Your task to perform on an android device: Is it going to rain today? Image 0: 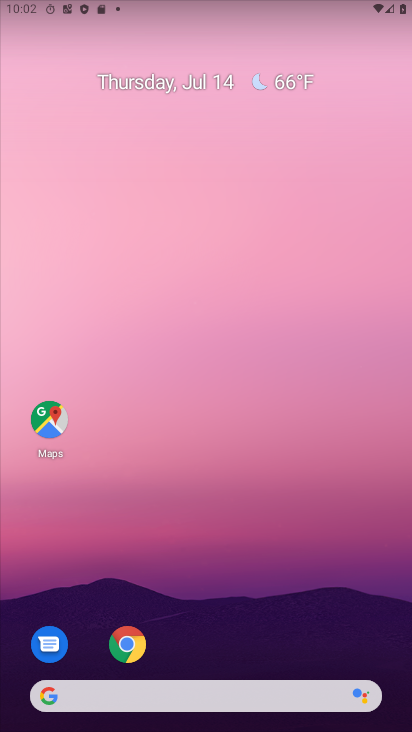
Step 0: drag from (188, 343) to (182, 289)
Your task to perform on an android device: Is it going to rain today? Image 1: 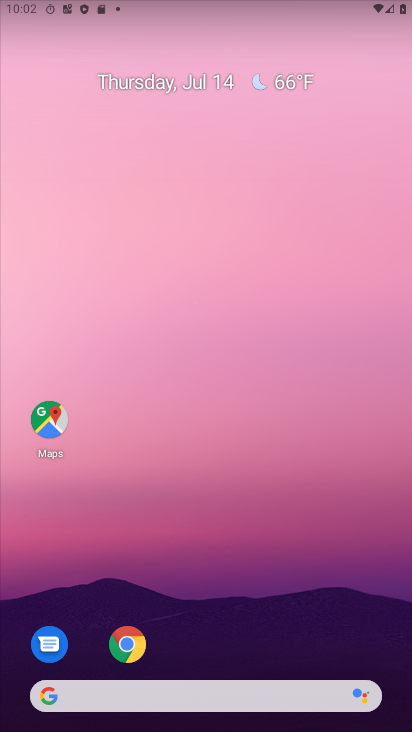
Step 1: drag from (256, 662) to (232, 221)
Your task to perform on an android device: Is it going to rain today? Image 2: 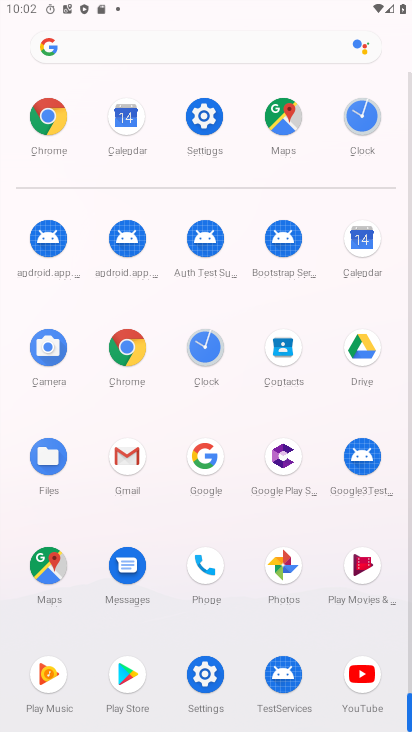
Step 2: click (54, 121)
Your task to perform on an android device: Is it going to rain today? Image 3: 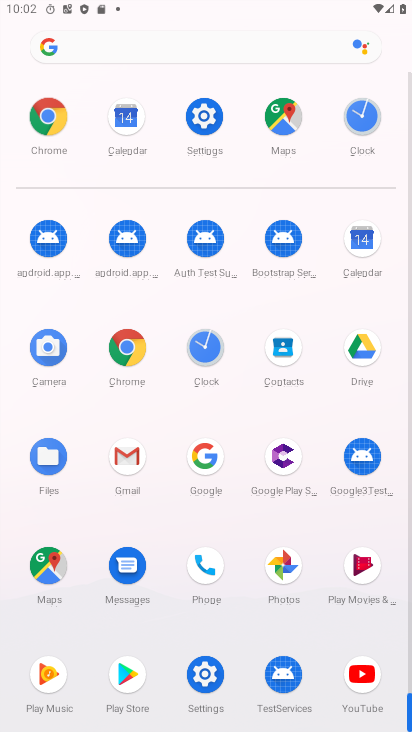
Step 3: click (54, 121)
Your task to perform on an android device: Is it going to rain today? Image 4: 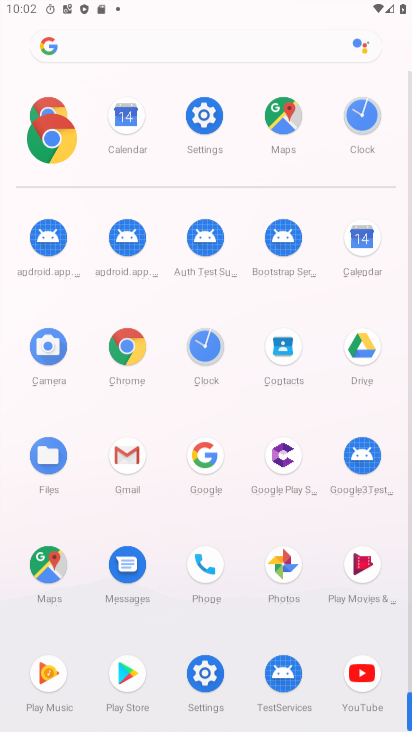
Step 4: click (54, 121)
Your task to perform on an android device: Is it going to rain today? Image 5: 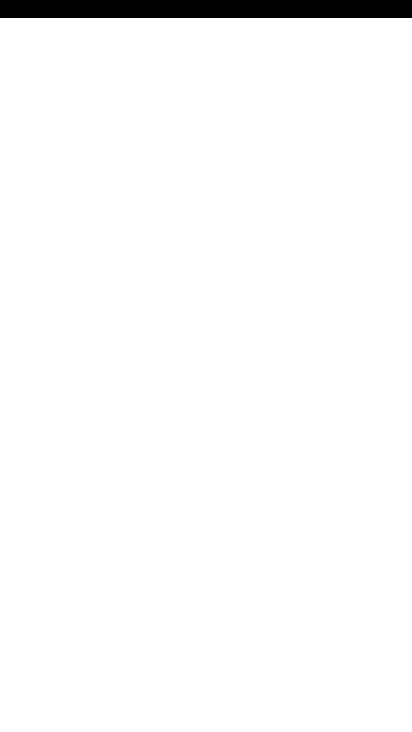
Step 5: click (55, 121)
Your task to perform on an android device: Is it going to rain today? Image 6: 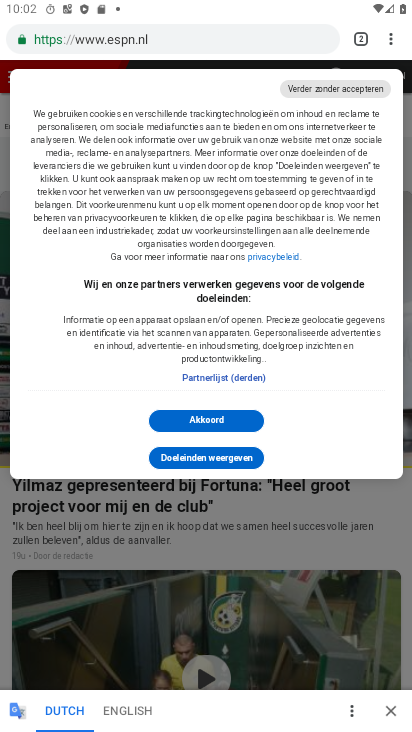
Step 6: drag from (389, 43) to (253, 78)
Your task to perform on an android device: Is it going to rain today? Image 7: 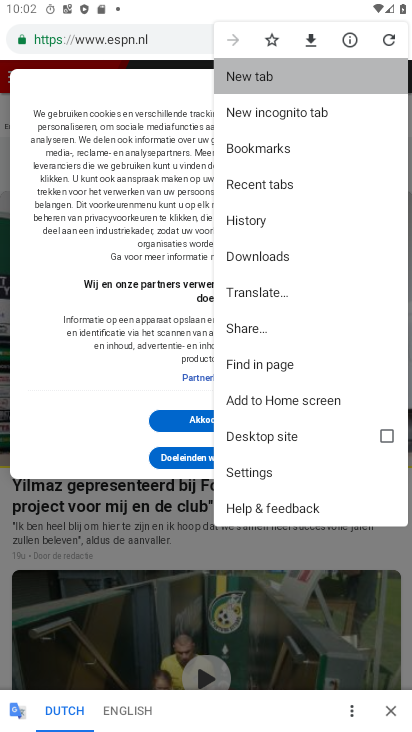
Step 7: click (253, 73)
Your task to perform on an android device: Is it going to rain today? Image 8: 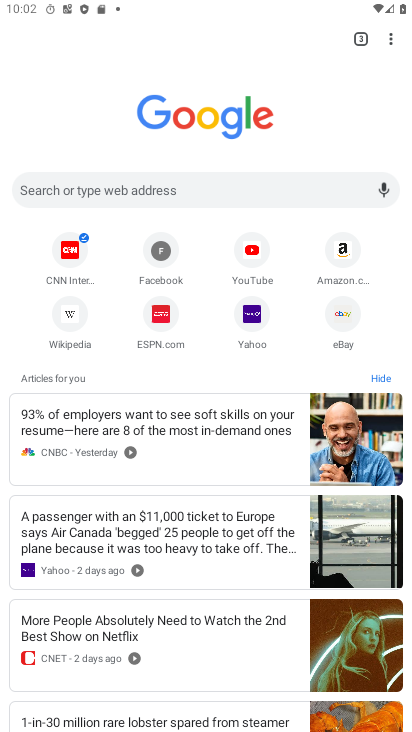
Step 8: click (39, 188)
Your task to perform on an android device: Is it going to rain today? Image 9: 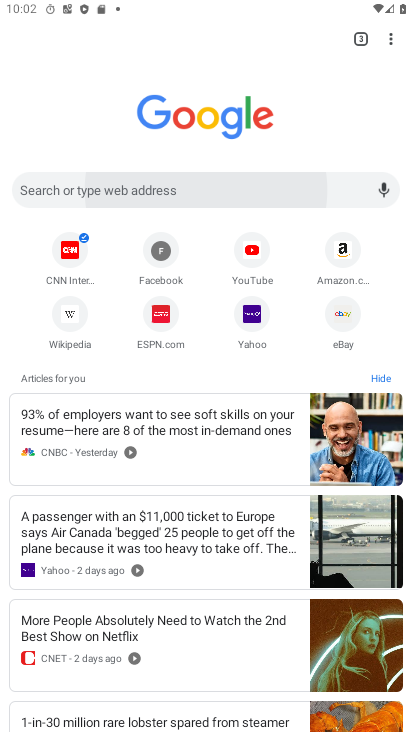
Step 9: click (39, 188)
Your task to perform on an android device: Is it going to rain today? Image 10: 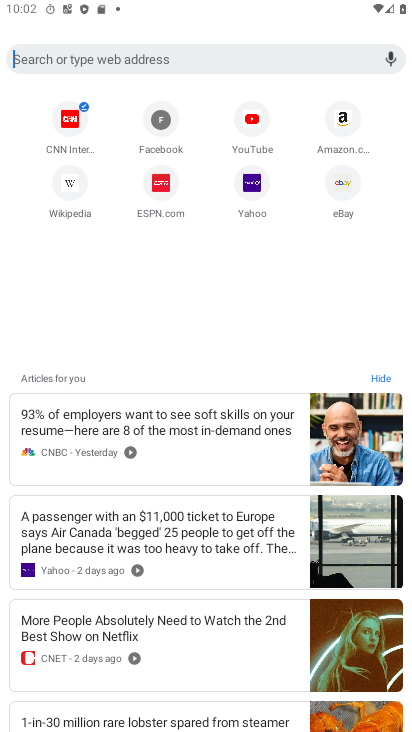
Step 10: click (39, 188)
Your task to perform on an android device: Is it going to rain today? Image 11: 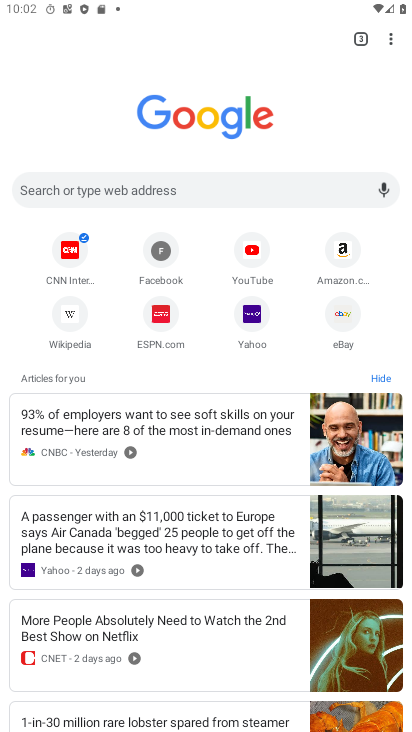
Step 11: click (54, 187)
Your task to perform on an android device: Is it going to rain today? Image 12: 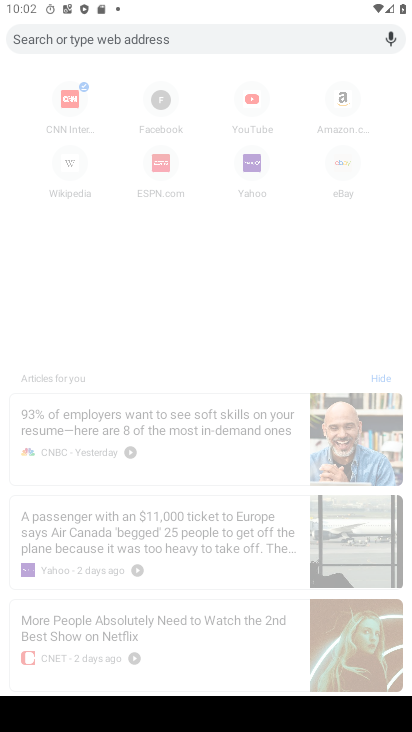
Step 12: type "is it going to rain today?"
Your task to perform on an android device: Is it going to rain today? Image 13: 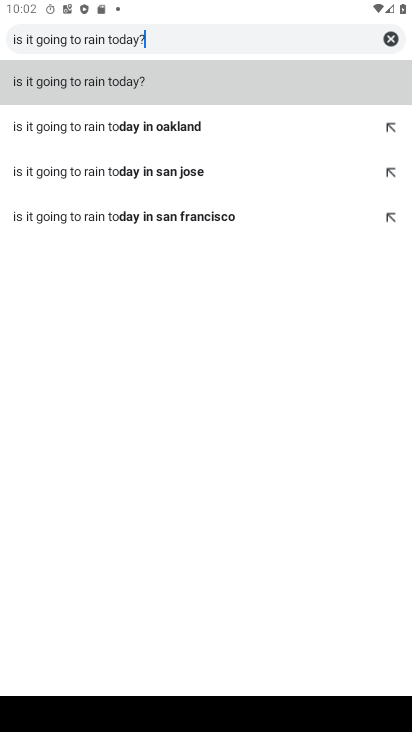
Step 13: click (113, 97)
Your task to perform on an android device: Is it going to rain today? Image 14: 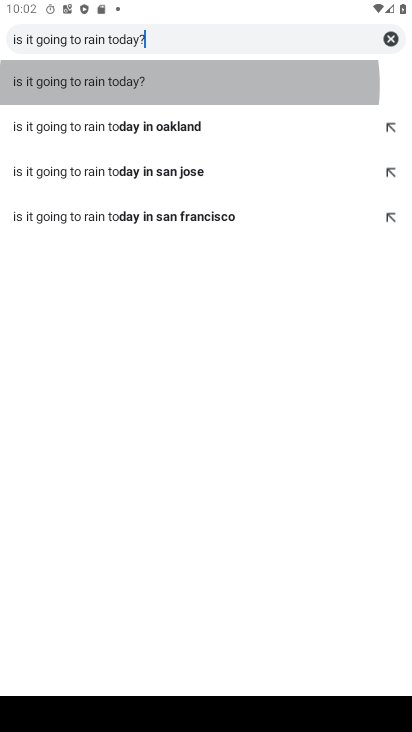
Step 14: click (114, 89)
Your task to perform on an android device: Is it going to rain today? Image 15: 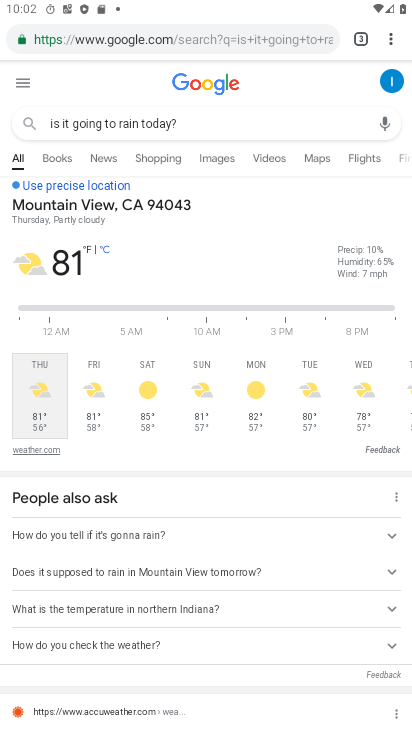
Step 15: task complete